Your task to perform on an android device: Go to display settings Image 0: 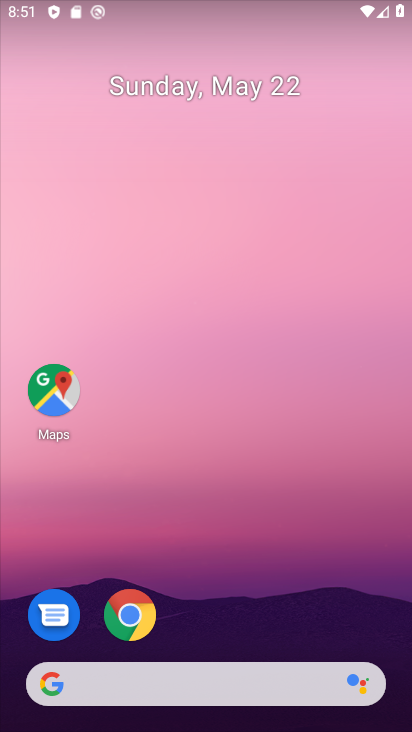
Step 0: click (137, 599)
Your task to perform on an android device: Go to display settings Image 1: 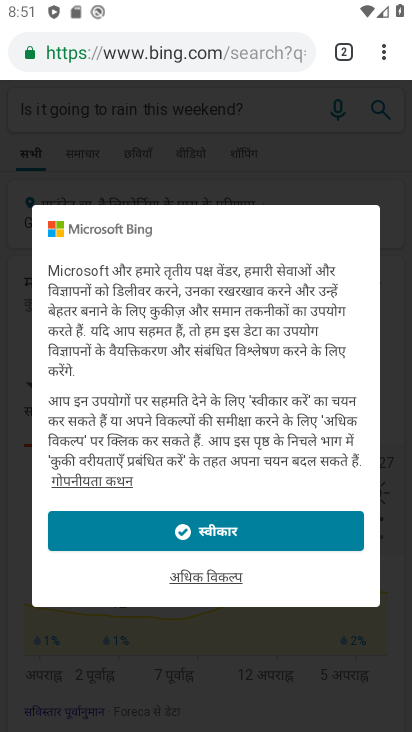
Step 1: press home button
Your task to perform on an android device: Go to display settings Image 2: 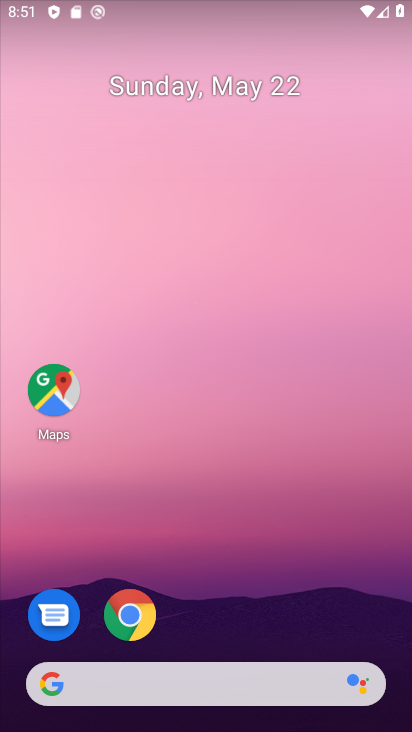
Step 2: drag from (251, 614) to (257, 265)
Your task to perform on an android device: Go to display settings Image 3: 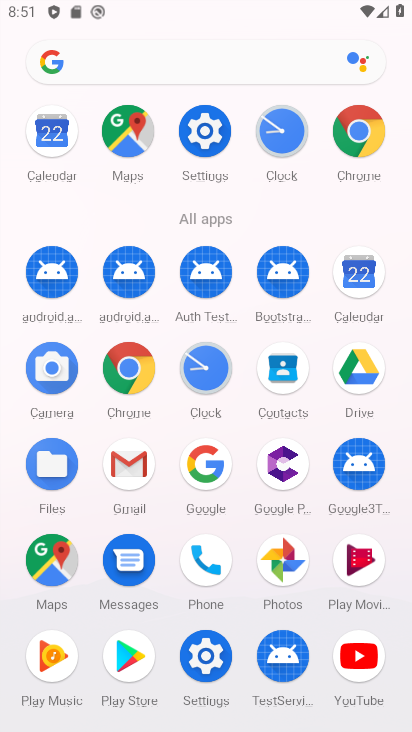
Step 3: click (209, 131)
Your task to perform on an android device: Go to display settings Image 4: 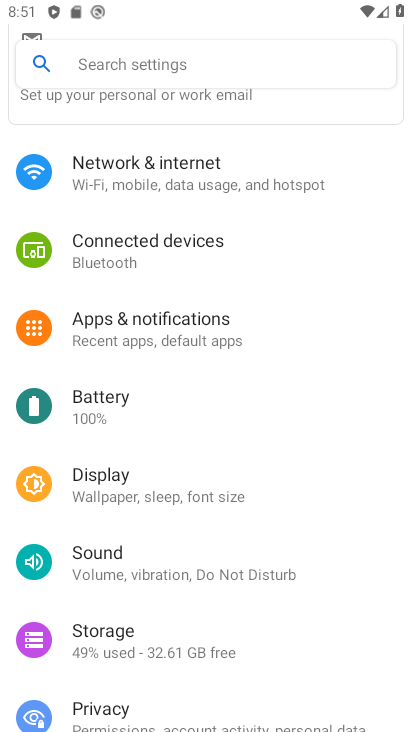
Step 4: click (203, 482)
Your task to perform on an android device: Go to display settings Image 5: 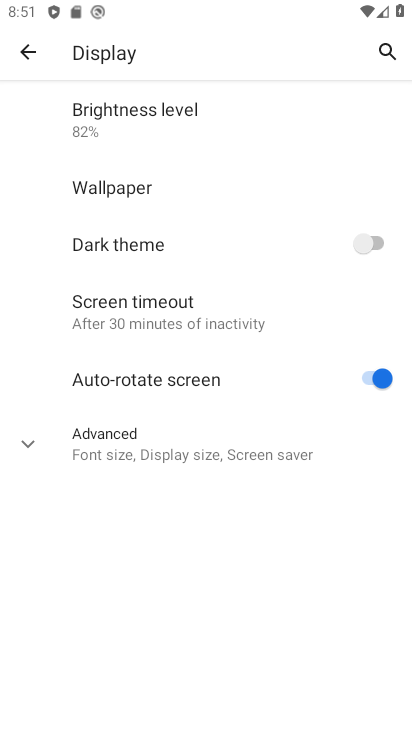
Step 5: task complete